Your task to perform on an android device: Do I have any events today? Image 0: 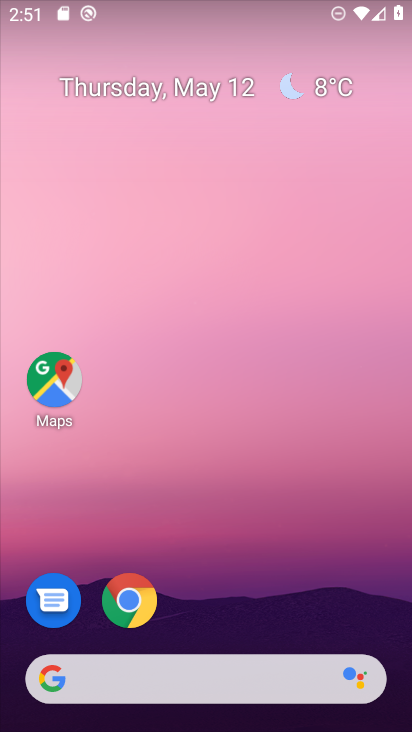
Step 0: drag from (210, 731) to (211, 257)
Your task to perform on an android device: Do I have any events today? Image 1: 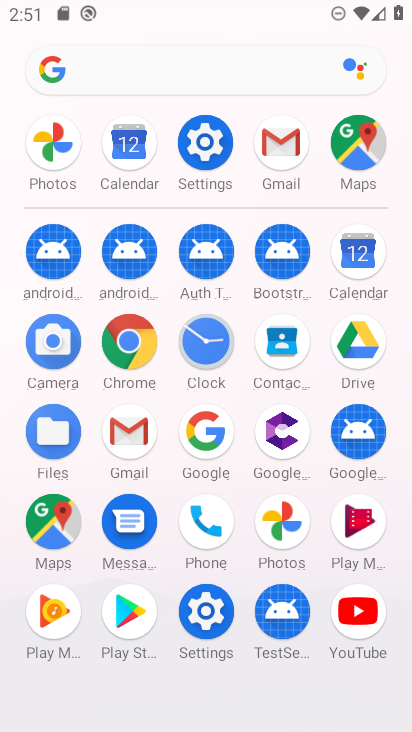
Step 1: click (352, 259)
Your task to perform on an android device: Do I have any events today? Image 2: 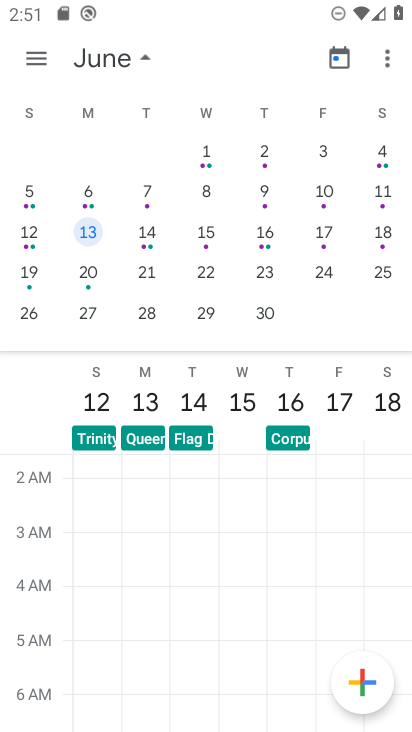
Step 2: click (29, 231)
Your task to perform on an android device: Do I have any events today? Image 3: 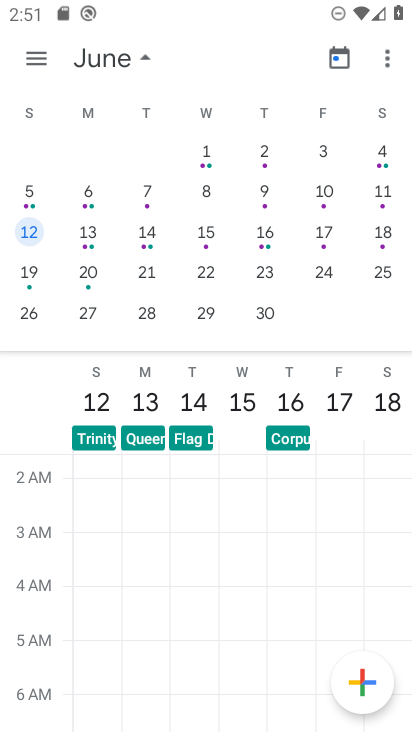
Step 3: click (30, 57)
Your task to perform on an android device: Do I have any events today? Image 4: 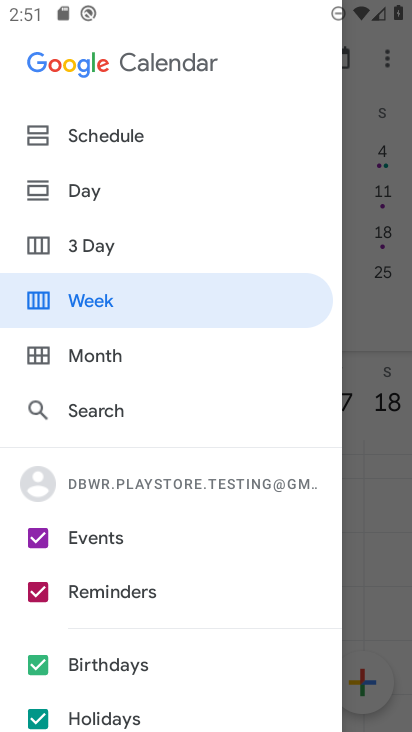
Step 4: click (33, 720)
Your task to perform on an android device: Do I have any events today? Image 5: 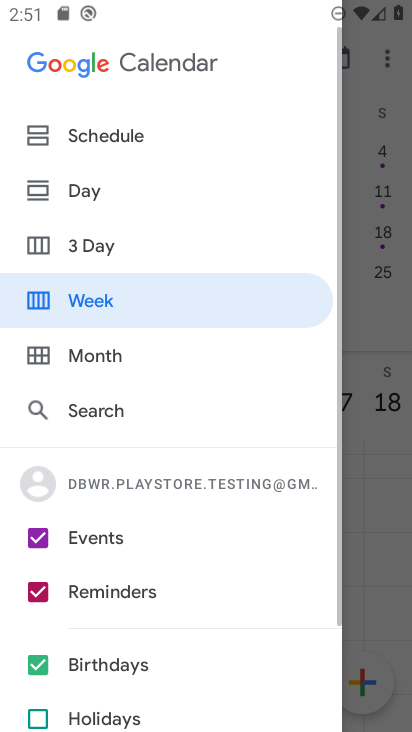
Step 5: click (41, 660)
Your task to perform on an android device: Do I have any events today? Image 6: 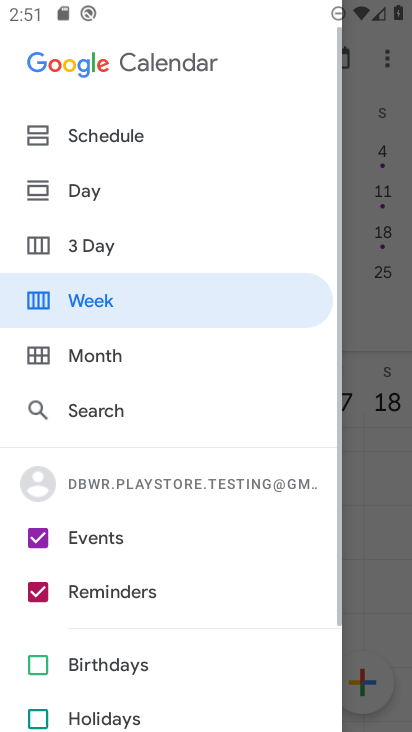
Step 6: click (39, 586)
Your task to perform on an android device: Do I have any events today? Image 7: 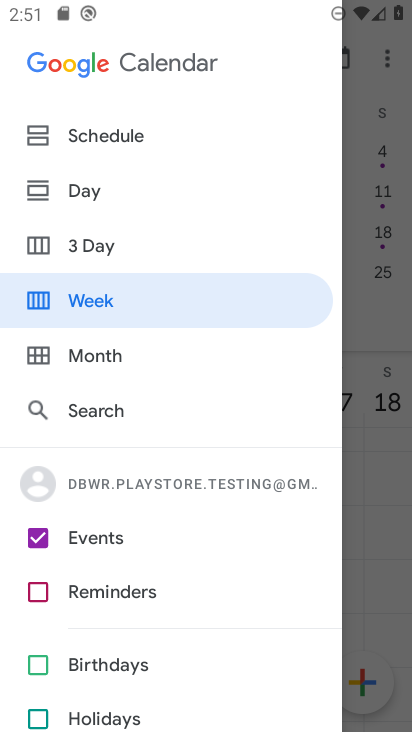
Step 7: click (82, 189)
Your task to perform on an android device: Do I have any events today? Image 8: 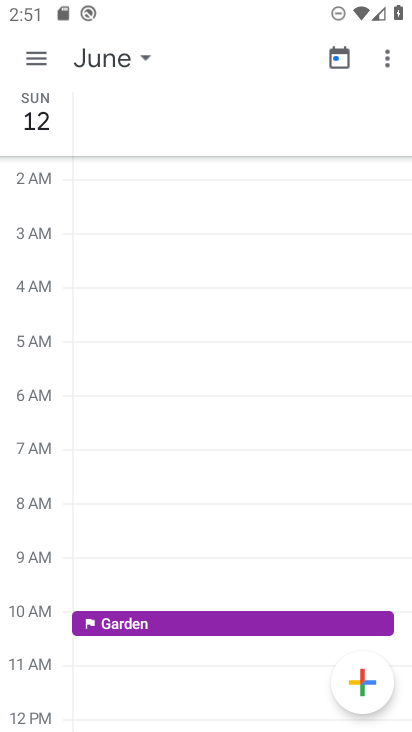
Step 8: task complete